Your task to perform on an android device: Open Android settings Image 0: 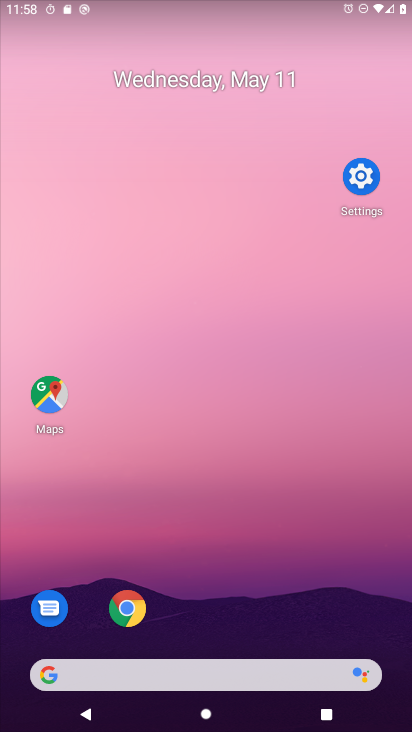
Step 0: drag from (318, 606) to (89, 1)
Your task to perform on an android device: Open Android settings Image 1: 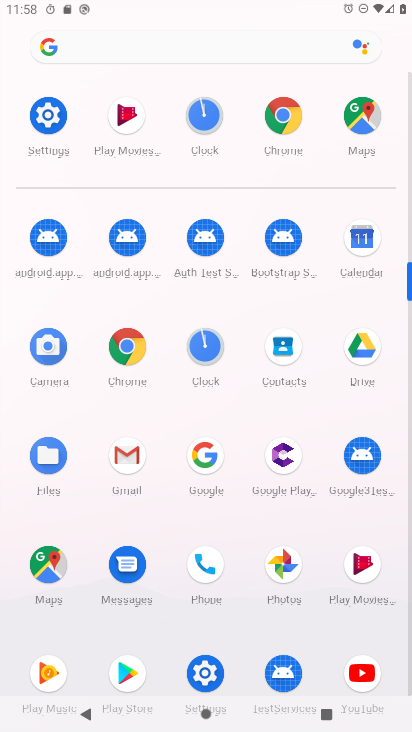
Step 1: click (43, 186)
Your task to perform on an android device: Open Android settings Image 2: 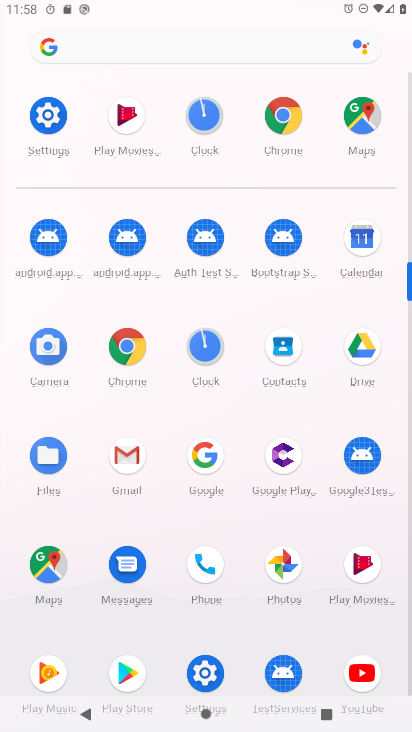
Step 2: click (53, 119)
Your task to perform on an android device: Open Android settings Image 3: 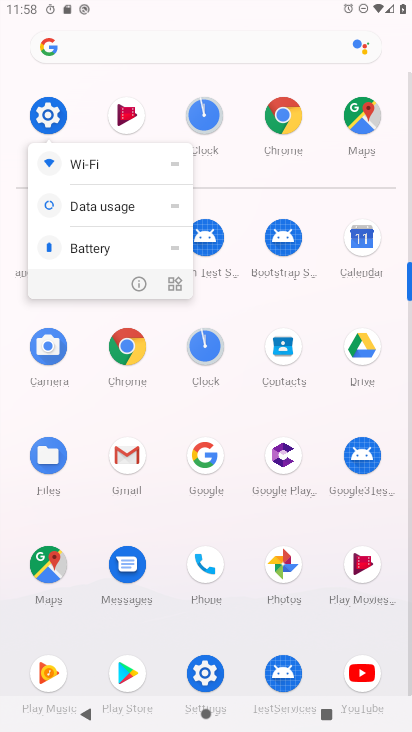
Step 3: click (53, 119)
Your task to perform on an android device: Open Android settings Image 4: 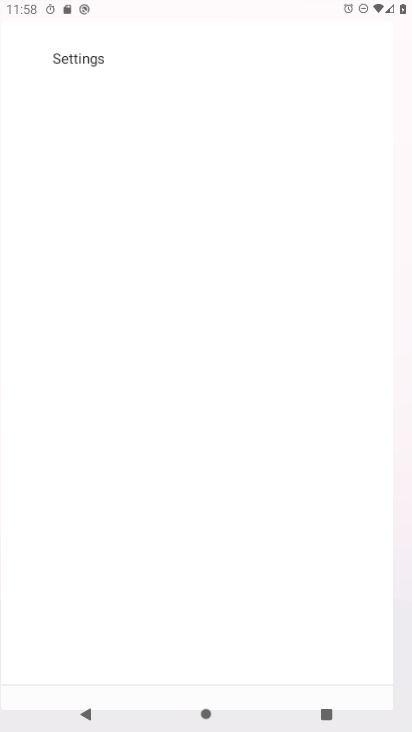
Step 4: click (53, 119)
Your task to perform on an android device: Open Android settings Image 5: 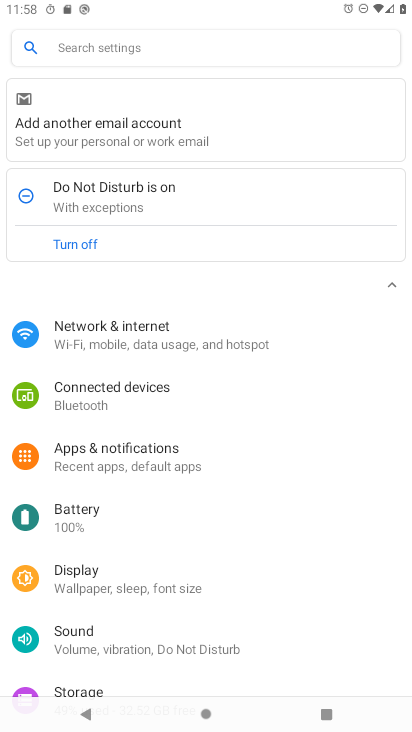
Step 5: drag from (157, 563) to (80, 132)
Your task to perform on an android device: Open Android settings Image 6: 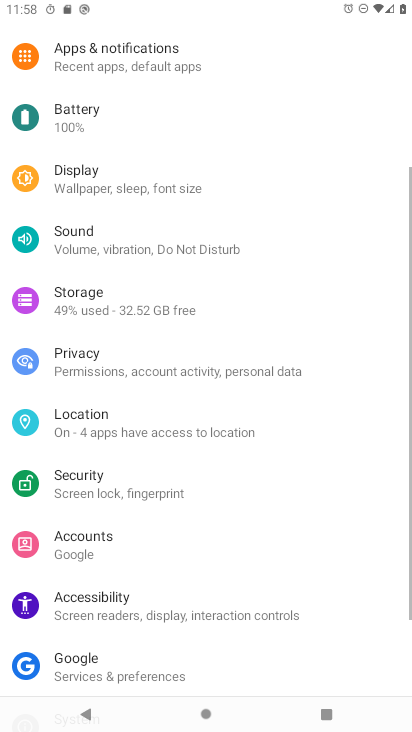
Step 6: drag from (138, 493) to (151, 98)
Your task to perform on an android device: Open Android settings Image 7: 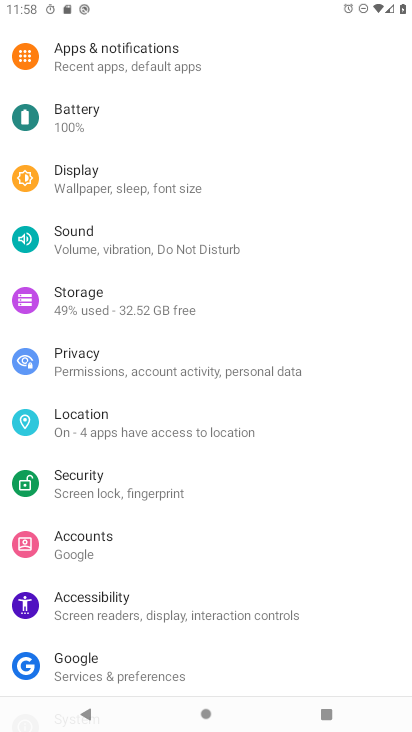
Step 7: drag from (221, 553) to (170, 82)
Your task to perform on an android device: Open Android settings Image 8: 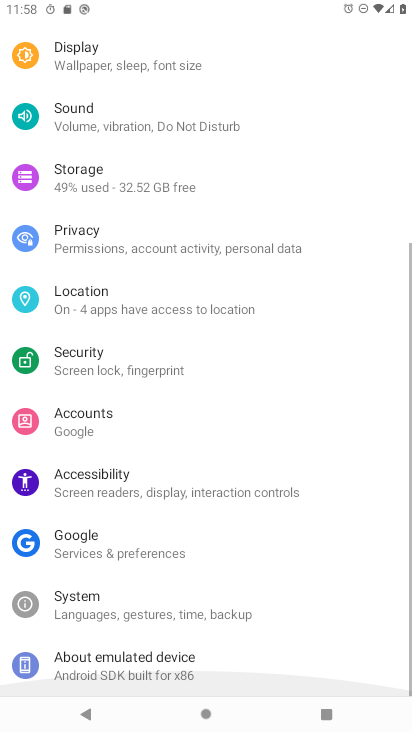
Step 8: drag from (148, 583) to (158, 75)
Your task to perform on an android device: Open Android settings Image 9: 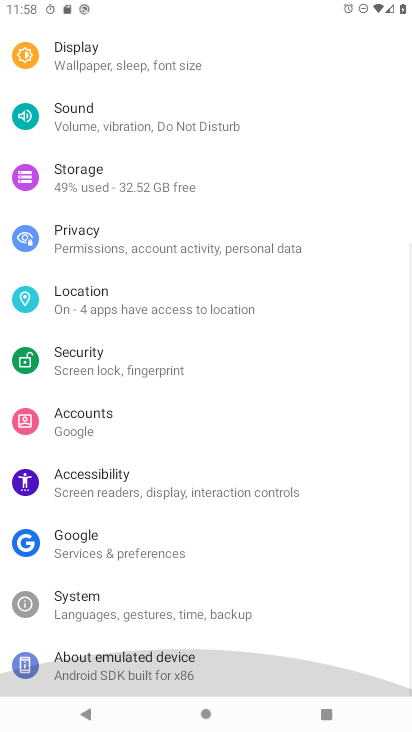
Step 9: drag from (163, 589) to (237, 121)
Your task to perform on an android device: Open Android settings Image 10: 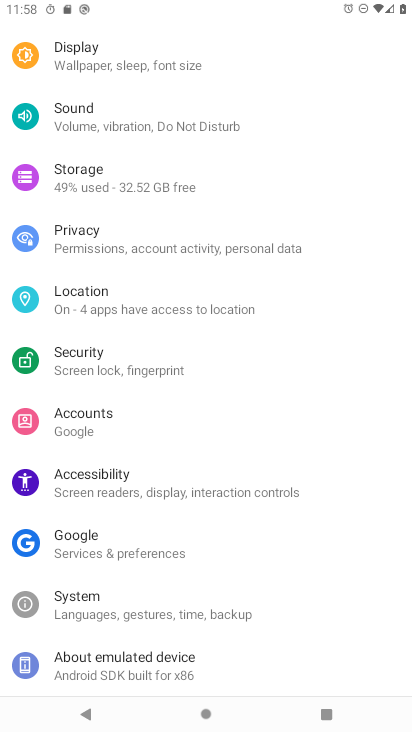
Step 10: click (107, 671)
Your task to perform on an android device: Open Android settings Image 11: 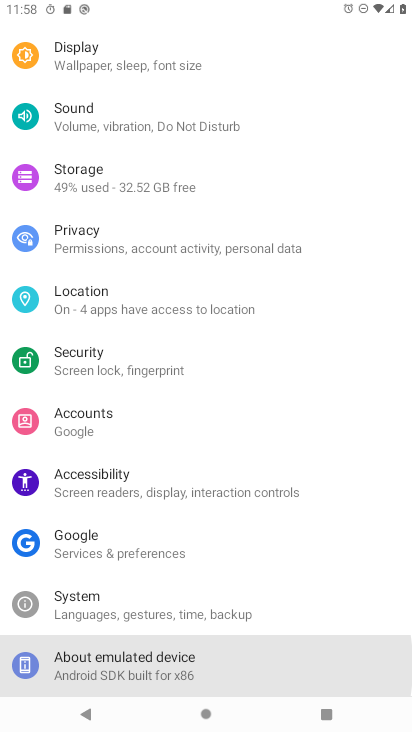
Step 11: click (109, 669)
Your task to perform on an android device: Open Android settings Image 12: 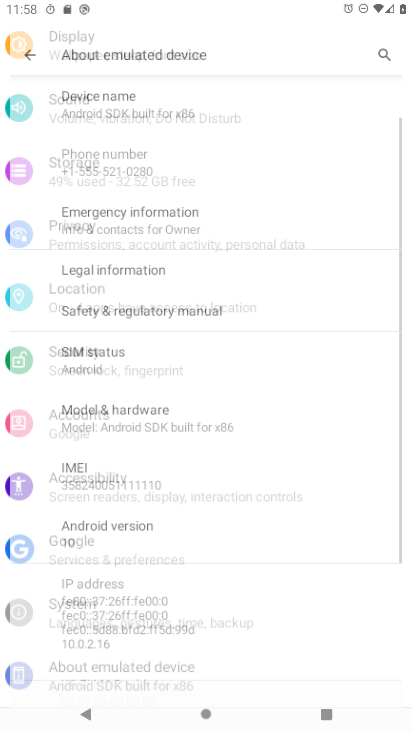
Step 12: click (109, 669)
Your task to perform on an android device: Open Android settings Image 13: 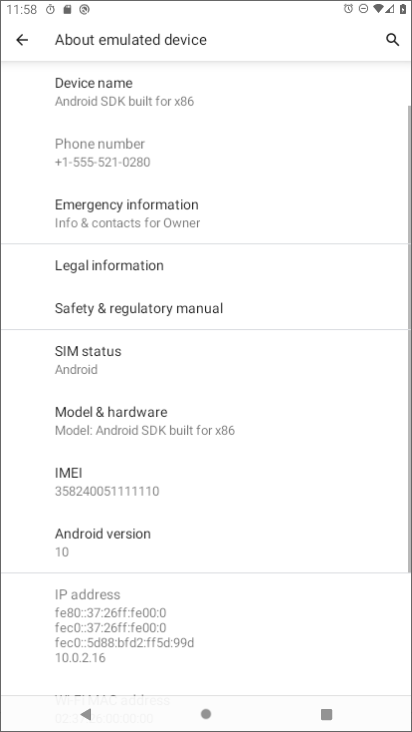
Step 13: click (109, 669)
Your task to perform on an android device: Open Android settings Image 14: 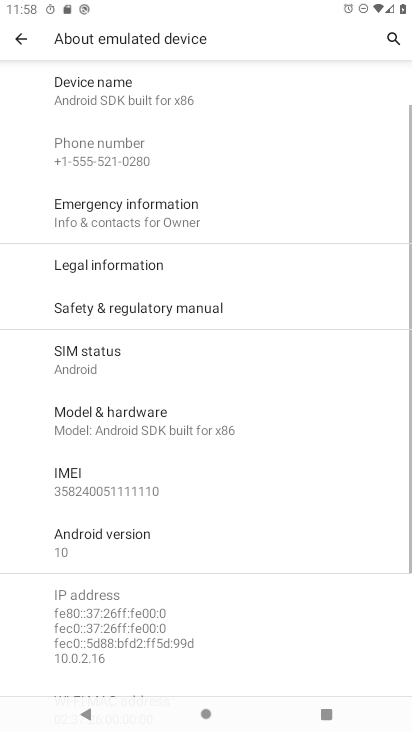
Step 14: click (110, 668)
Your task to perform on an android device: Open Android settings Image 15: 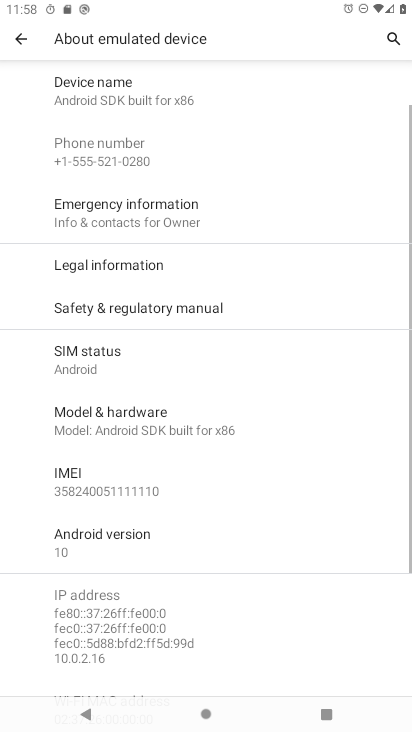
Step 15: click (110, 667)
Your task to perform on an android device: Open Android settings Image 16: 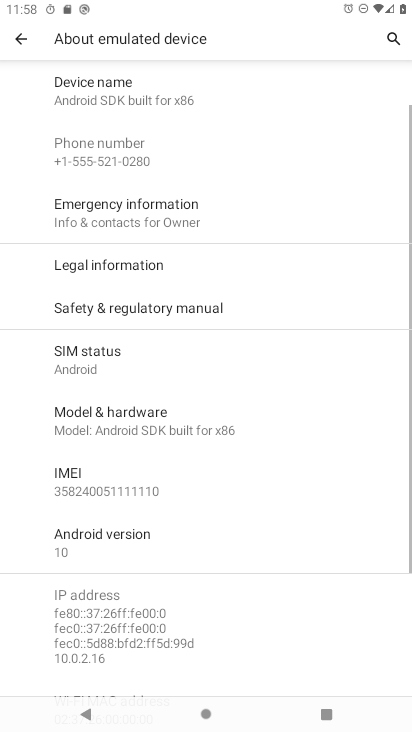
Step 16: task complete